Your task to perform on an android device: check data usage Image 0: 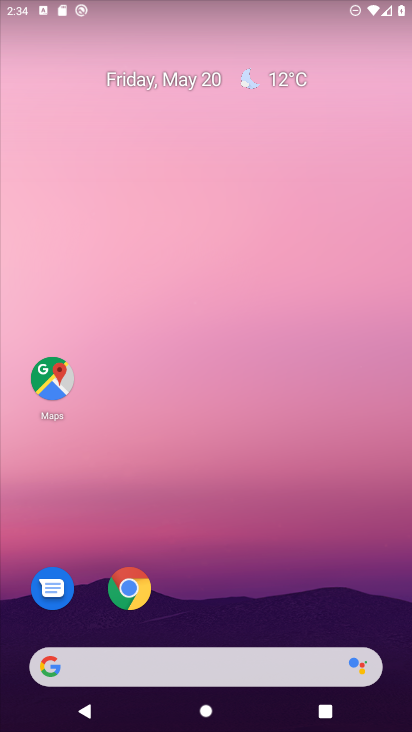
Step 0: drag from (403, 633) to (349, 53)
Your task to perform on an android device: check data usage Image 1: 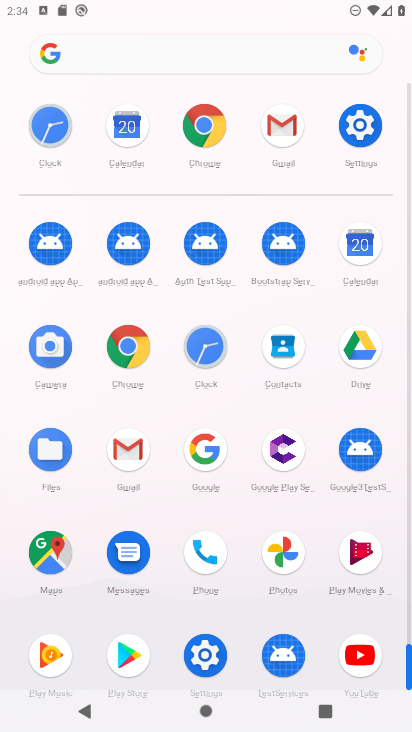
Step 1: click (203, 655)
Your task to perform on an android device: check data usage Image 2: 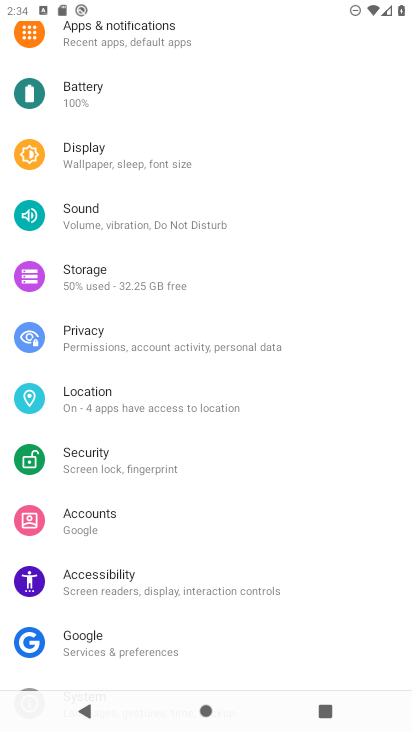
Step 2: drag from (297, 126) to (296, 383)
Your task to perform on an android device: check data usage Image 3: 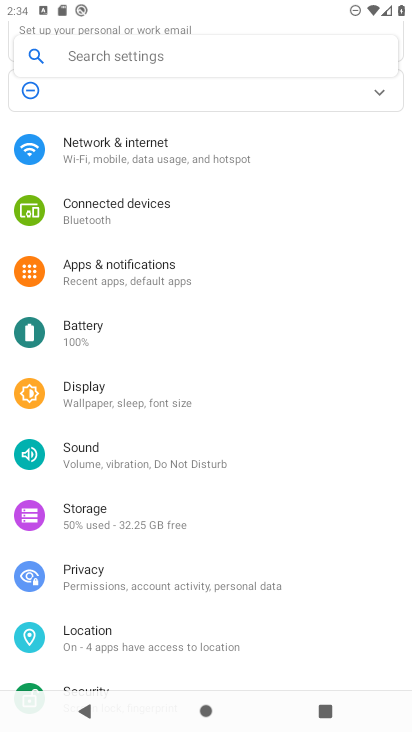
Step 3: click (92, 143)
Your task to perform on an android device: check data usage Image 4: 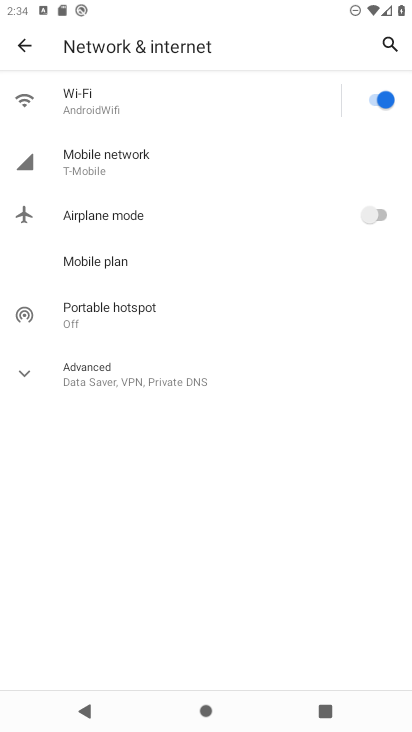
Step 4: click (133, 155)
Your task to perform on an android device: check data usage Image 5: 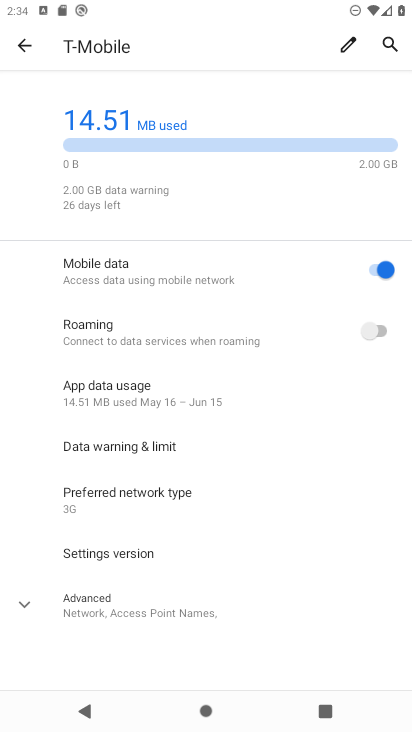
Step 5: task complete